Your task to perform on an android device: turn on improve location accuracy Image 0: 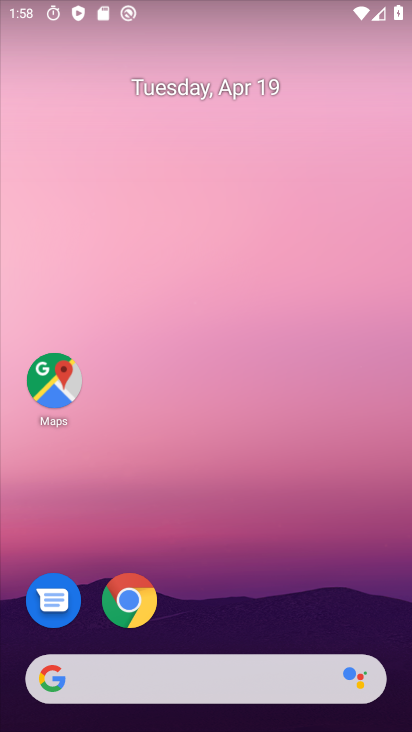
Step 0: drag from (224, 712) to (232, 335)
Your task to perform on an android device: turn on improve location accuracy Image 1: 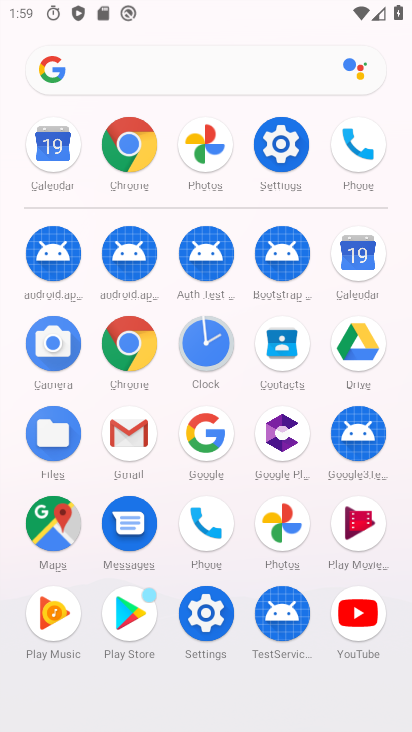
Step 1: click (270, 151)
Your task to perform on an android device: turn on improve location accuracy Image 2: 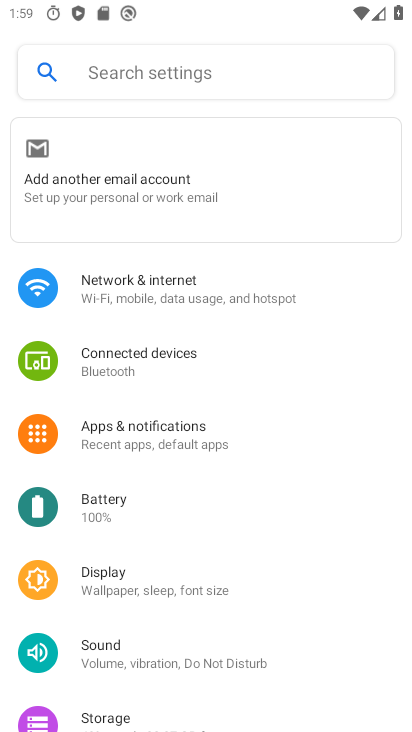
Step 2: click (201, 73)
Your task to perform on an android device: turn on improve location accuracy Image 3: 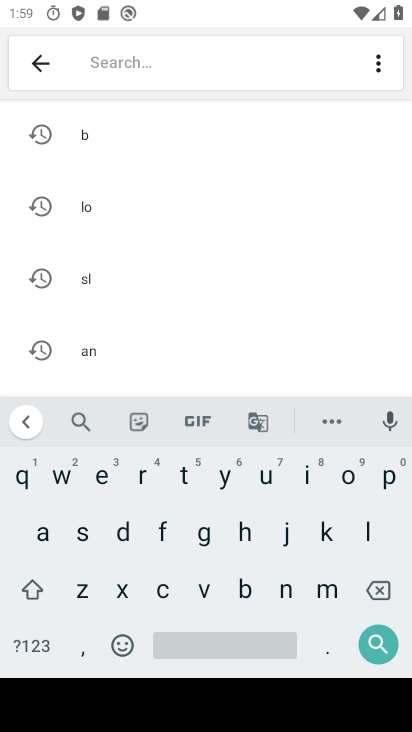
Step 3: click (129, 201)
Your task to perform on an android device: turn on improve location accuracy Image 4: 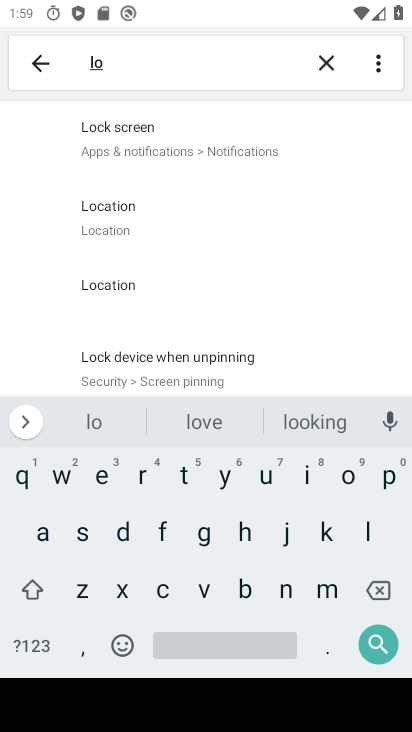
Step 4: click (149, 200)
Your task to perform on an android device: turn on improve location accuracy Image 5: 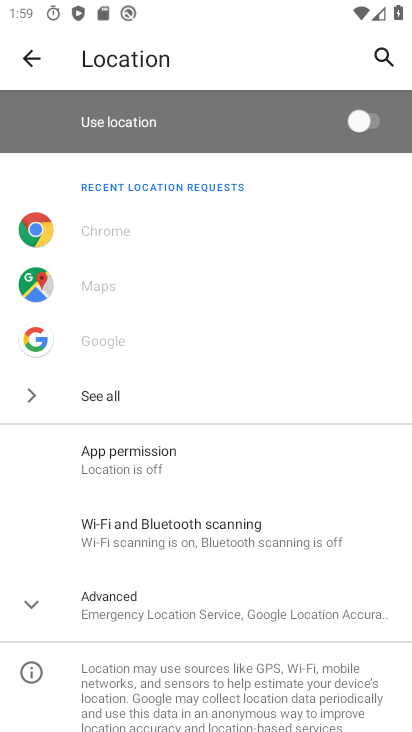
Step 5: click (85, 599)
Your task to perform on an android device: turn on improve location accuracy Image 6: 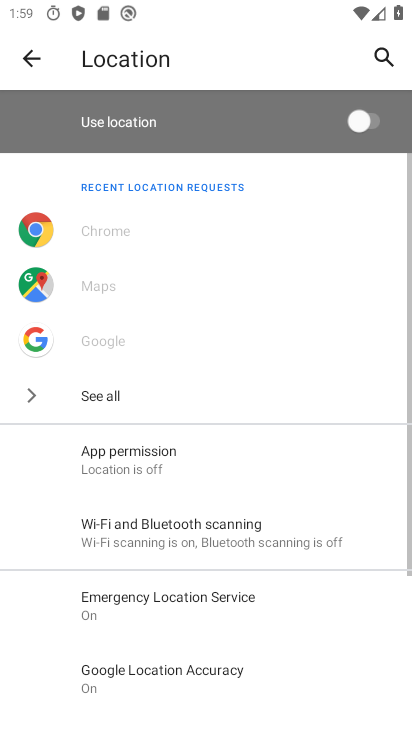
Step 6: click (126, 671)
Your task to perform on an android device: turn on improve location accuracy Image 7: 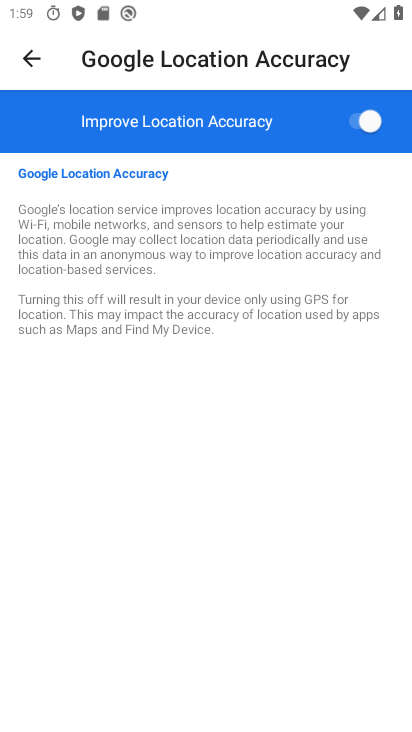
Step 7: click (376, 117)
Your task to perform on an android device: turn on improve location accuracy Image 8: 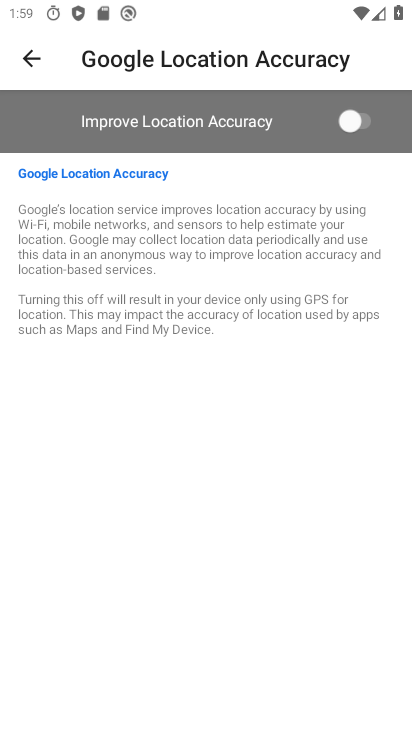
Step 8: click (369, 125)
Your task to perform on an android device: turn on improve location accuracy Image 9: 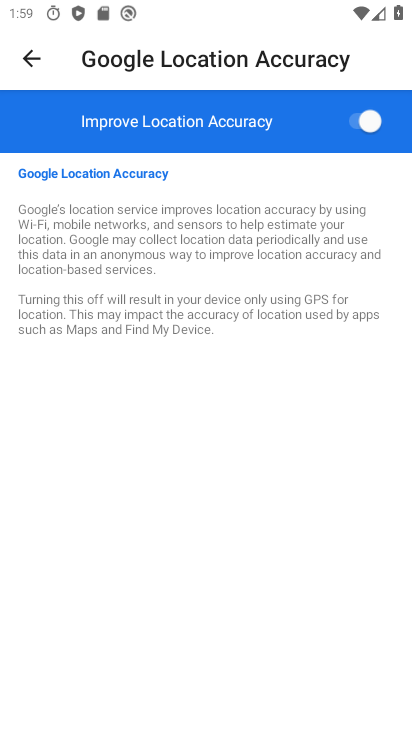
Step 9: task complete